Your task to perform on an android device: Open Android settings Image 0: 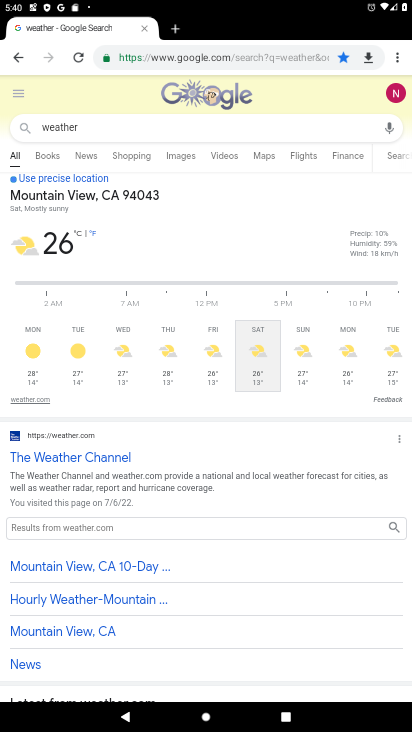
Step 0: press home button
Your task to perform on an android device: Open Android settings Image 1: 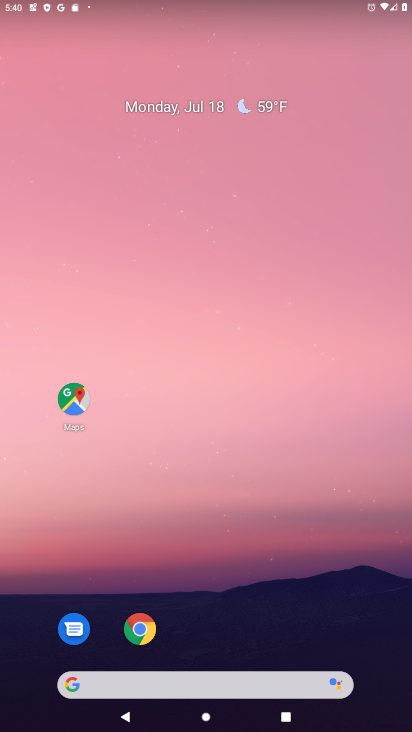
Step 1: drag from (320, 622) to (250, 135)
Your task to perform on an android device: Open Android settings Image 2: 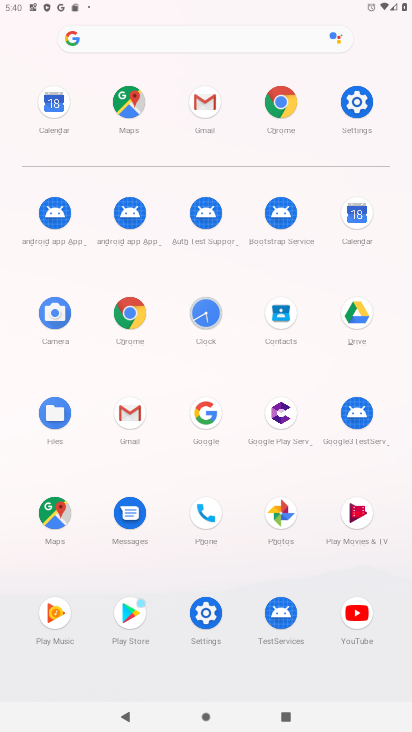
Step 2: click (356, 100)
Your task to perform on an android device: Open Android settings Image 3: 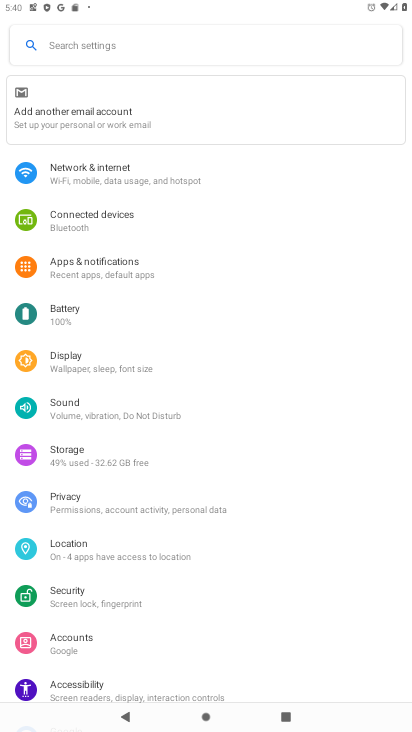
Step 3: task complete